Your task to perform on an android device: allow notifications from all sites in the chrome app Image 0: 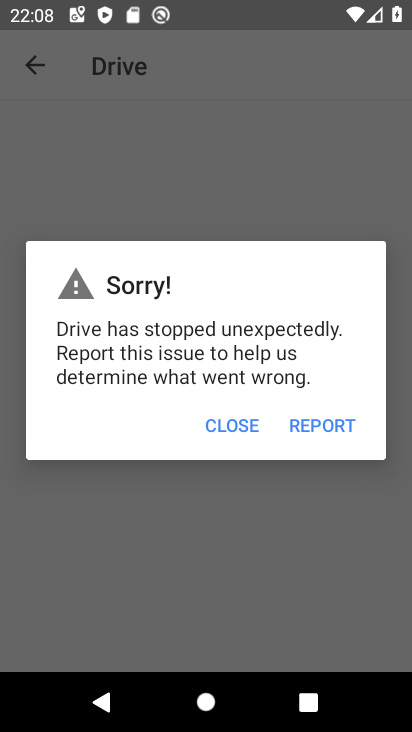
Step 0: press home button
Your task to perform on an android device: allow notifications from all sites in the chrome app Image 1: 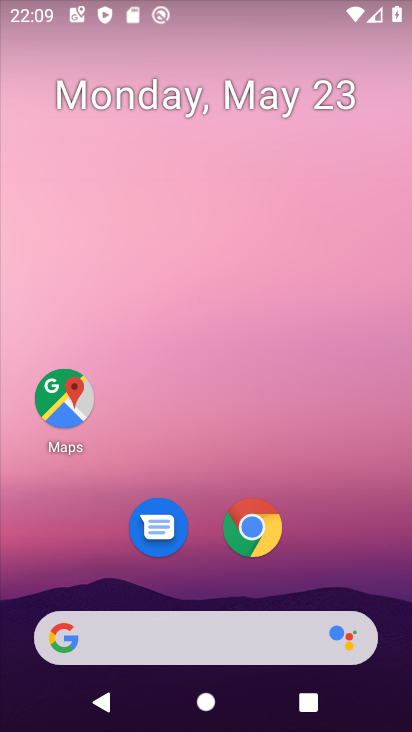
Step 1: click (278, 518)
Your task to perform on an android device: allow notifications from all sites in the chrome app Image 2: 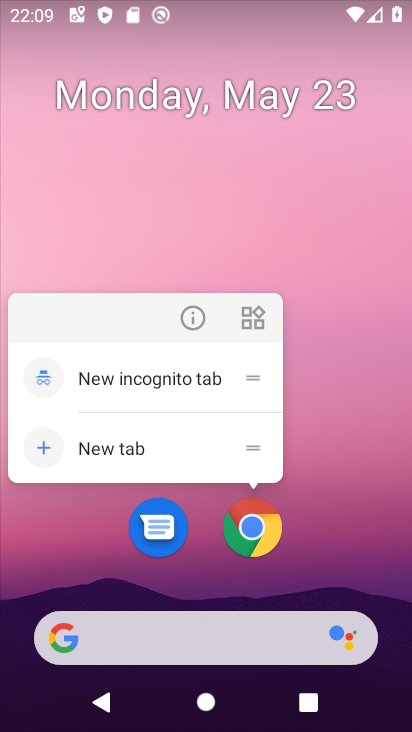
Step 2: click (264, 547)
Your task to perform on an android device: allow notifications from all sites in the chrome app Image 3: 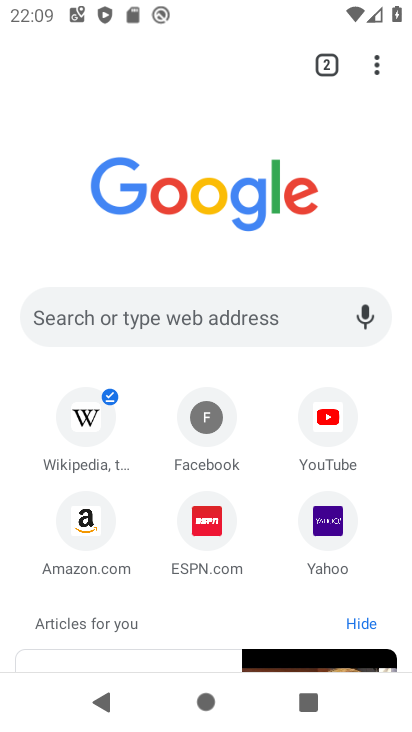
Step 3: drag from (373, 62) to (221, 545)
Your task to perform on an android device: allow notifications from all sites in the chrome app Image 4: 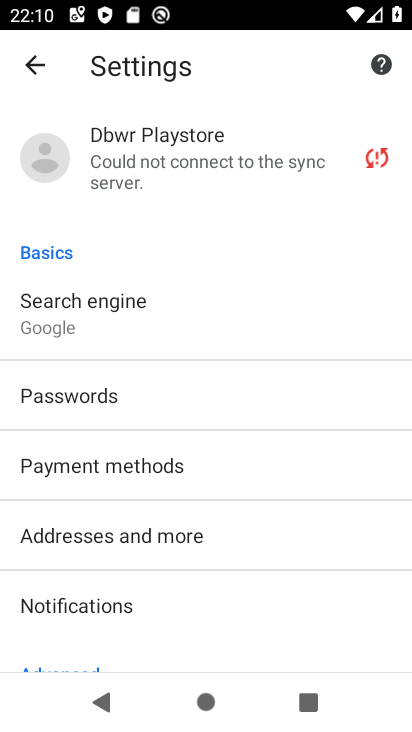
Step 4: drag from (132, 610) to (128, 234)
Your task to perform on an android device: allow notifications from all sites in the chrome app Image 5: 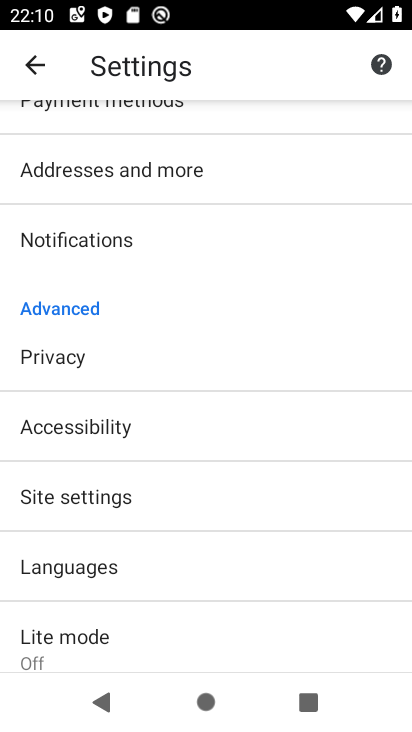
Step 5: click (85, 509)
Your task to perform on an android device: allow notifications from all sites in the chrome app Image 6: 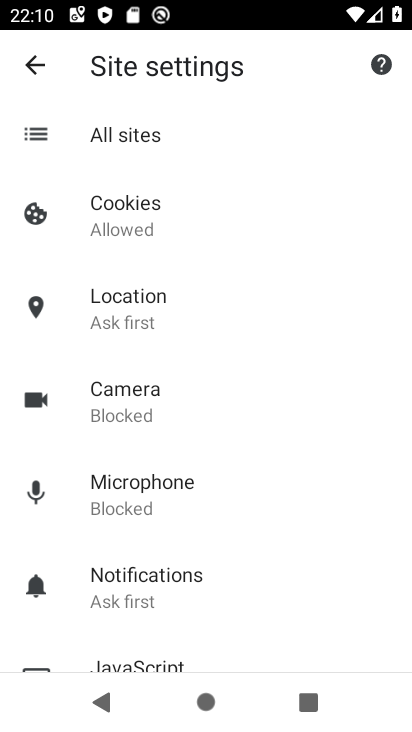
Step 6: click (154, 599)
Your task to perform on an android device: allow notifications from all sites in the chrome app Image 7: 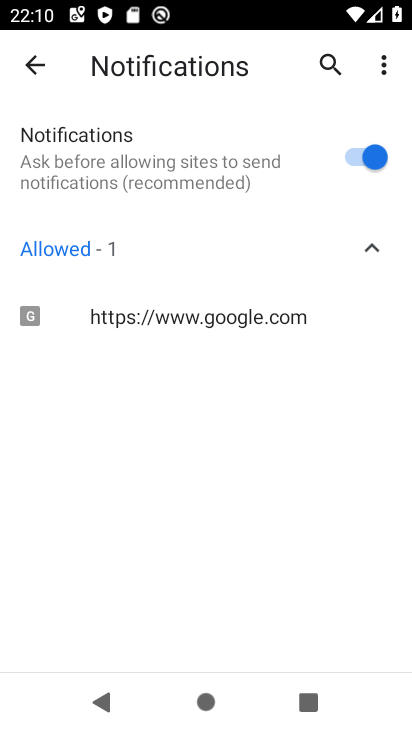
Step 7: task complete